Your task to perform on an android device: delete browsing data in the chrome app Image 0: 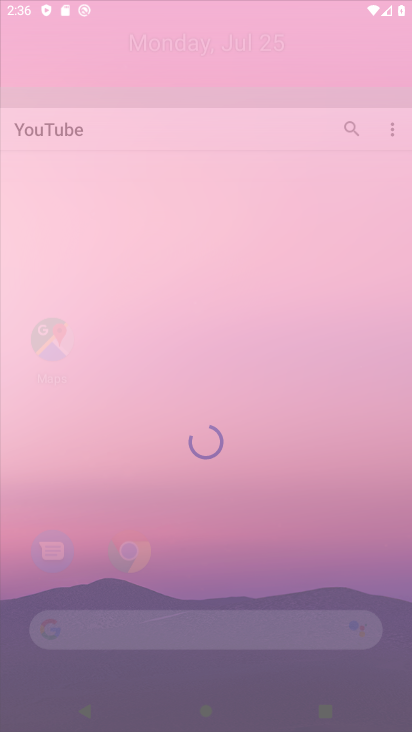
Step 0: press home button
Your task to perform on an android device: delete browsing data in the chrome app Image 1: 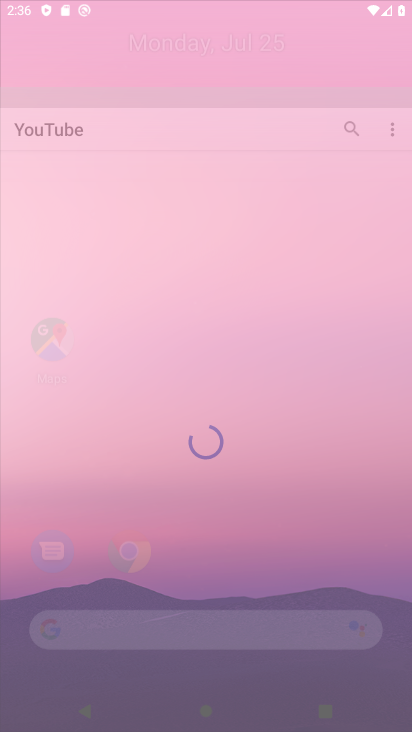
Step 1: click (283, 264)
Your task to perform on an android device: delete browsing data in the chrome app Image 2: 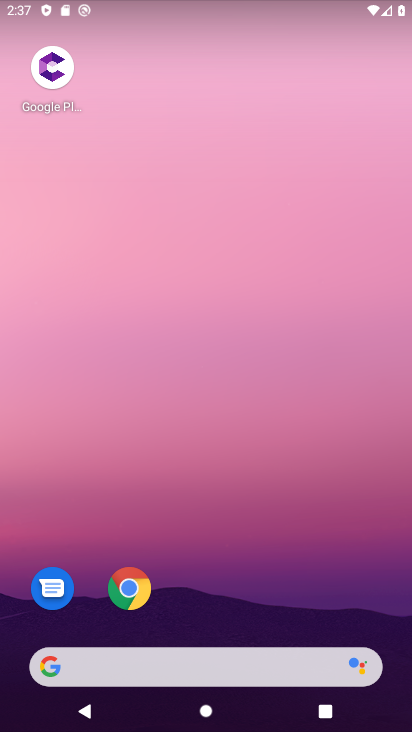
Step 2: drag from (235, 593) to (275, 218)
Your task to perform on an android device: delete browsing data in the chrome app Image 3: 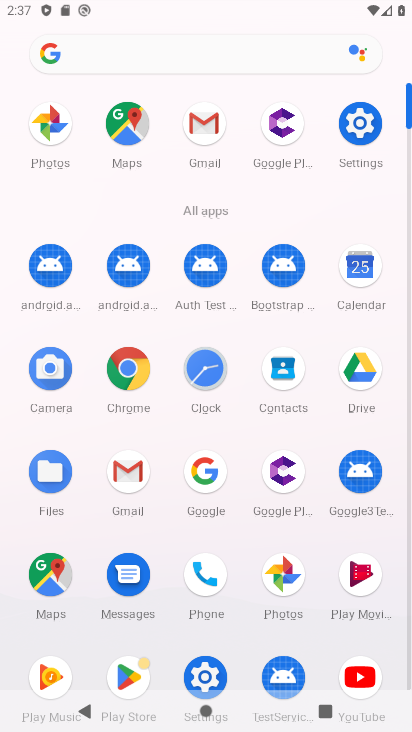
Step 3: click (138, 362)
Your task to perform on an android device: delete browsing data in the chrome app Image 4: 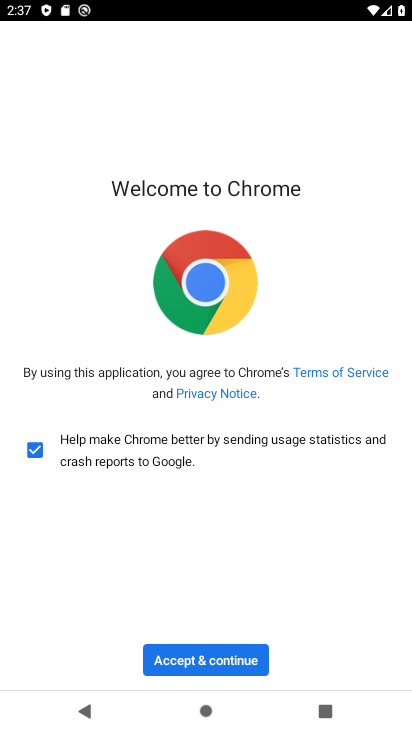
Step 4: click (227, 645)
Your task to perform on an android device: delete browsing data in the chrome app Image 5: 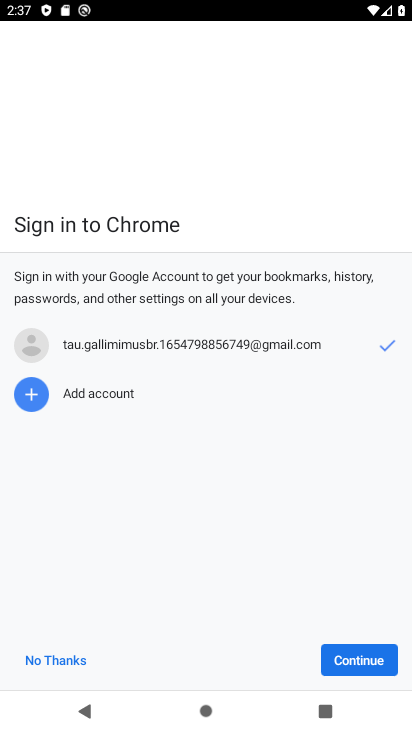
Step 5: click (376, 651)
Your task to perform on an android device: delete browsing data in the chrome app Image 6: 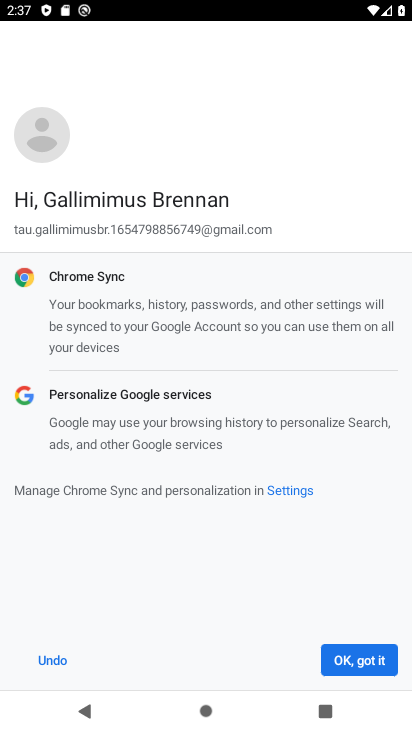
Step 6: click (376, 651)
Your task to perform on an android device: delete browsing data in the chrome app Image 7: 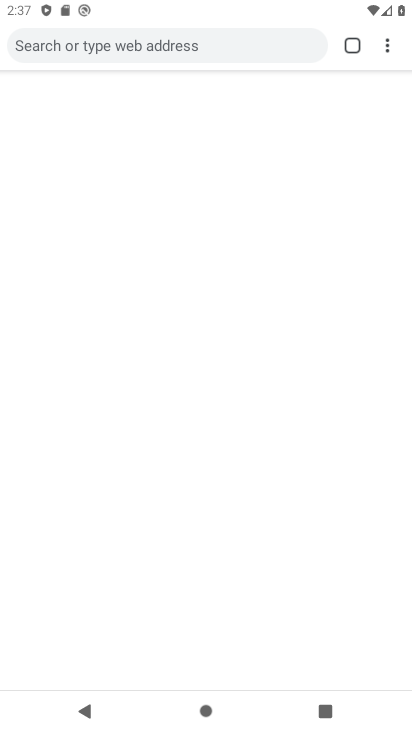
Step 7: click (395, 37)
Your task to perform on an android device: delete browsing data in the chrome app Image 8: 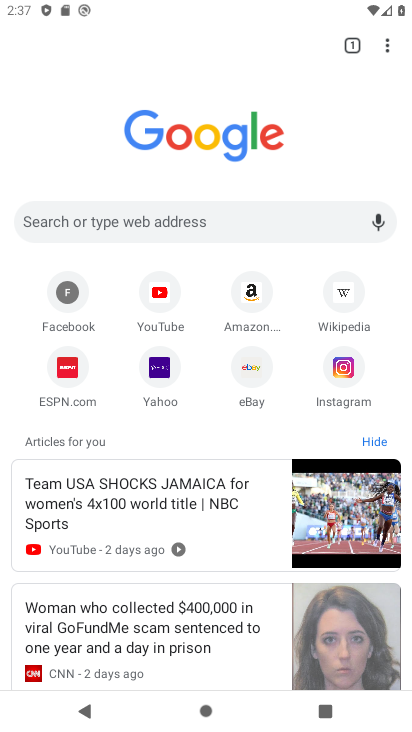
Step 8: click (395, 36)
Your task to perform on an android device: delete browsing data in the chrome app Image 9: 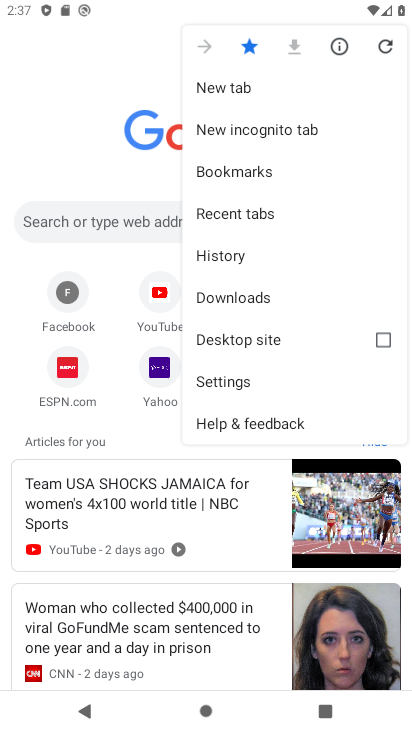
Step 9: click (229, 380)
Your task to perform on an android device: delete browsing data in the chrome app Image 10: 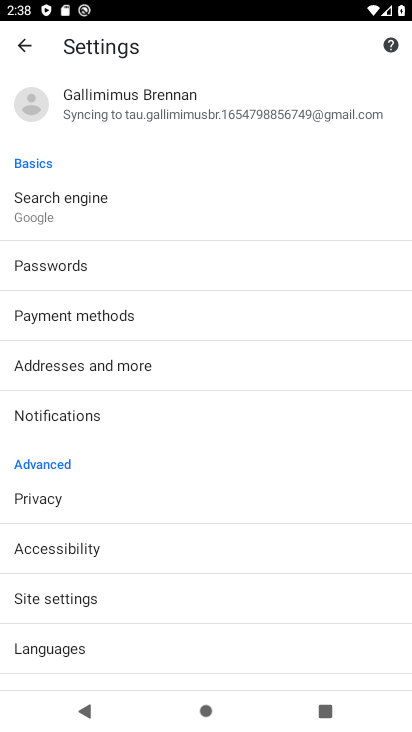
Step 10: click (125, 500)
Your task to perform on an android device: delete browsing data in the chrome app Image 11: 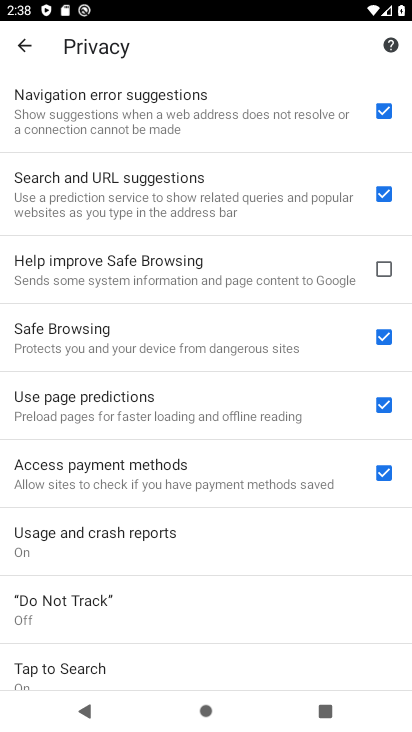
Step 11: drag from (218, 604) to (274, 133)
Your task to perform on an android device: delete browsing data in the chrome app Image 12: 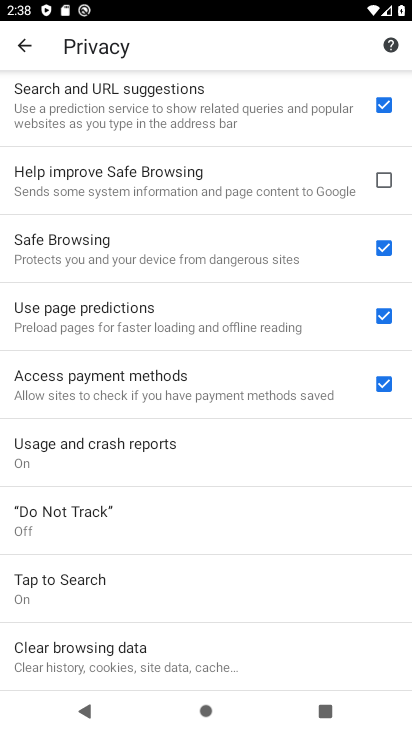
Step 12: click (194, 648)
Your task to perform on an android device: delete browsing data in the chrome app Image 13: 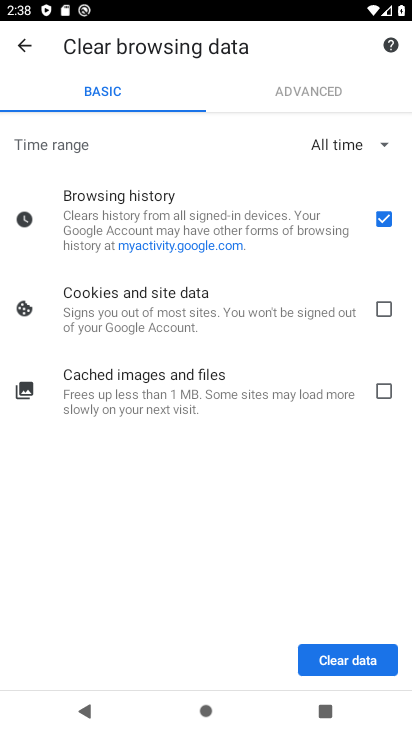
Step 13: click (356, 650)
Your task to perform on an android device: delete browsing data in the chrome app Image 14: 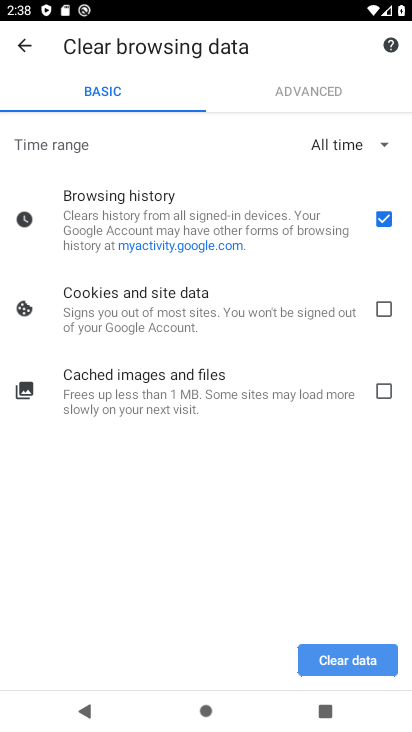
Step 14: click (377, 298)
Your task to perform on an android device: delete browsing data in the chrome app Image 15: 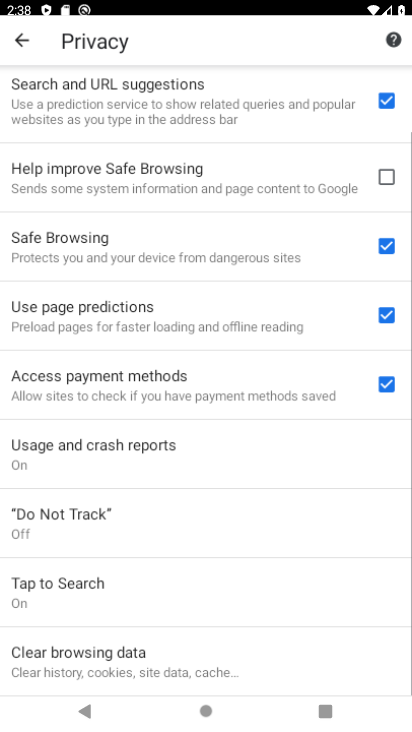
Step 15: click (383, 368)
Your task to perform on an android device: delete browsing data in the chrome app Image 16: 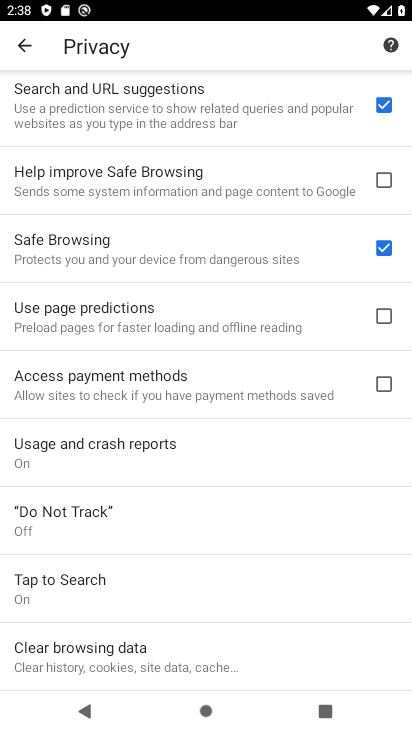
Step 16: click (160, 656)
Your task to perform on an android device: delete browsing data in the chrome app Image 17: 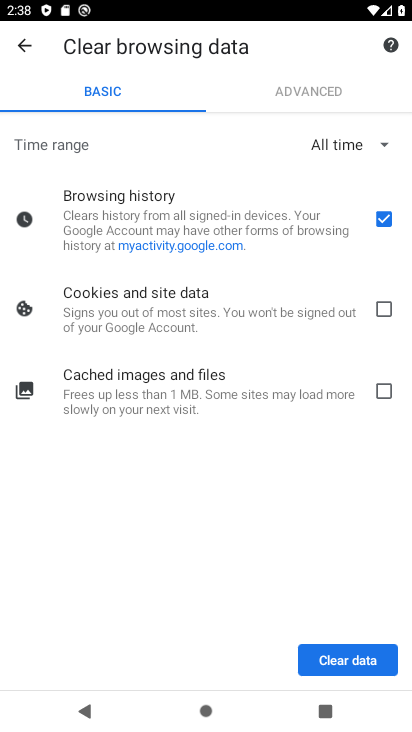
Step 17: click (393, 302)
Your task to perform on an android device: delete browsing data in the chrome app Image 18: 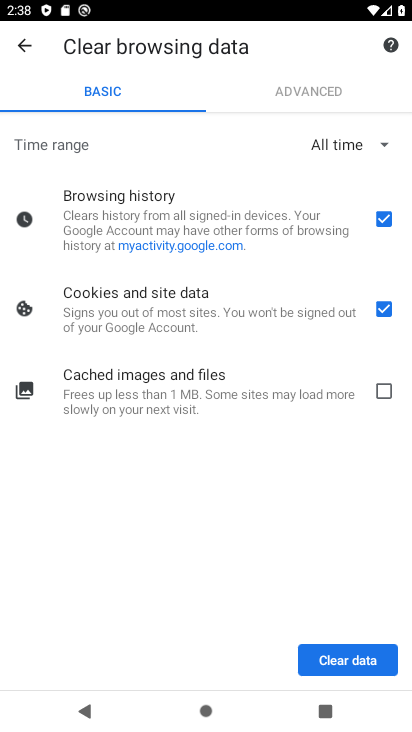
Step 18: click (388, 388)
Your task to perform on an android device: delete browsing data in the chrome app Image 19: 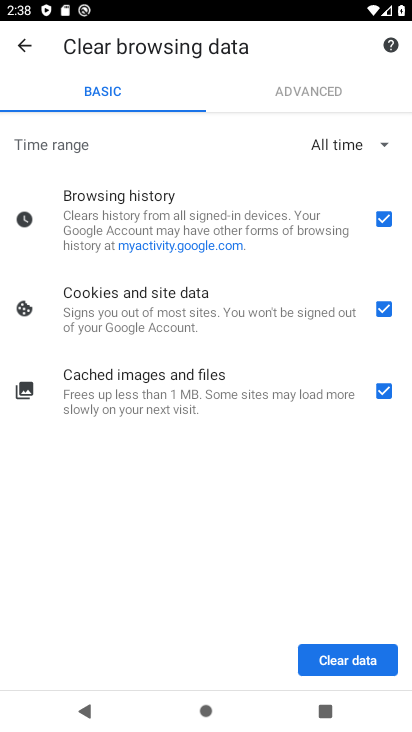
Step 19: click (365, 666)
Your task to perform on an android device: delete browsing data in the chrome app Image 20: 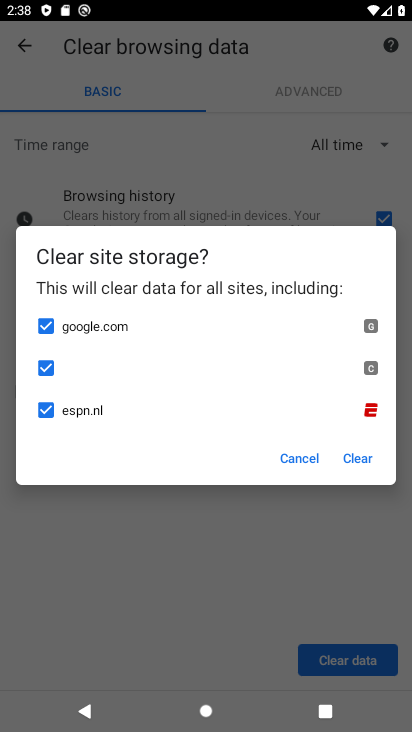
Step 20: click (380, 464)
Your task to perform on an android device: delete browsing data in the chrome app Image 21: 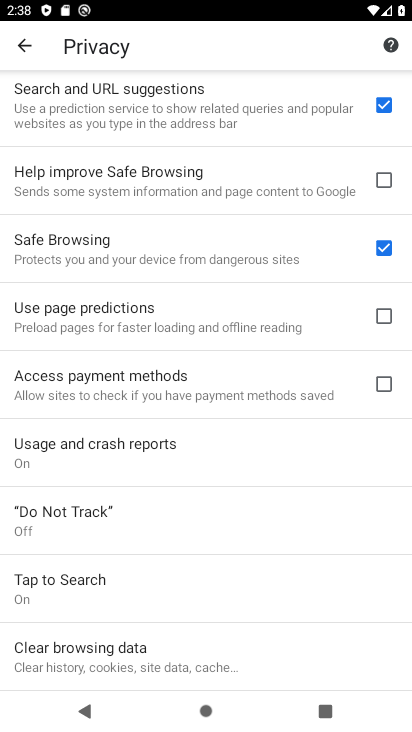
Step 21: task complete